Your task to perform on an android device: turn off wifi Image 0: 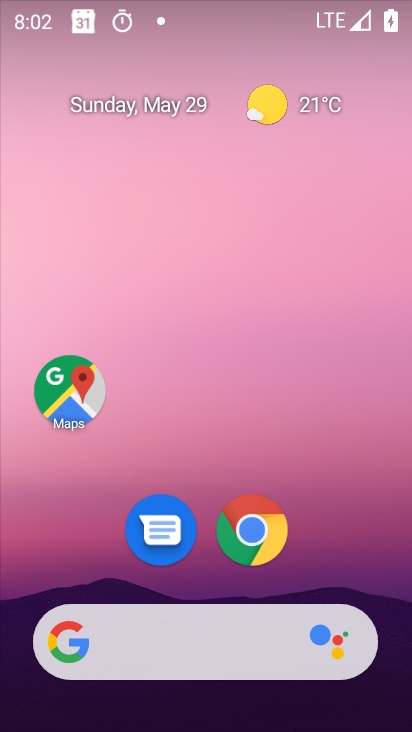
Step 0: drag from (276, 685) to (246, 264)
Your task to perform on an android device: turn off wifi Image 1: 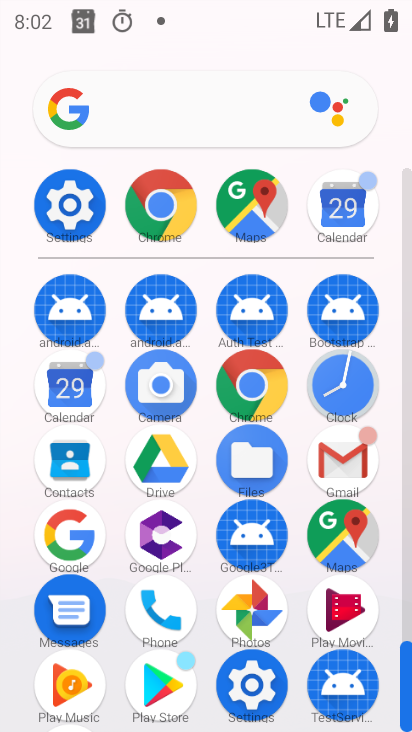
Step 1: click (72, 228)
Your task to perform on an android device: turn off wifi Image 2: 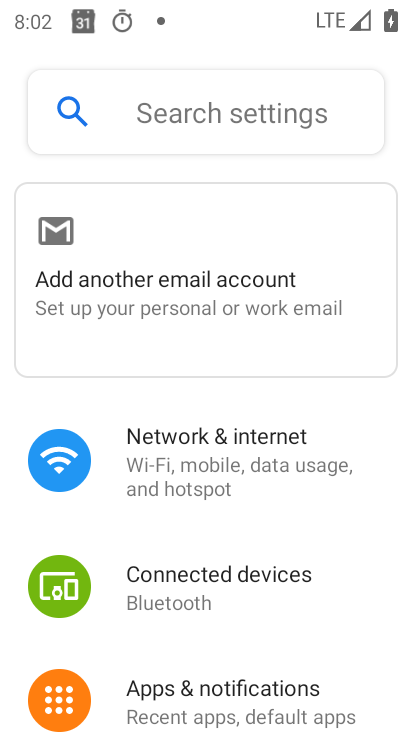
Step 2: click (204, 469)
Your task to perform on an android device: turn off wifi Image 3: 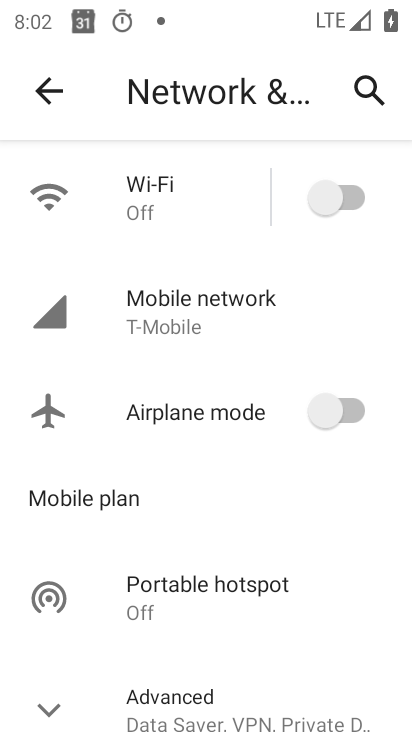
Step 3: click (335, 201)
Your task to perform on an android device: turn off wifi Image 4: 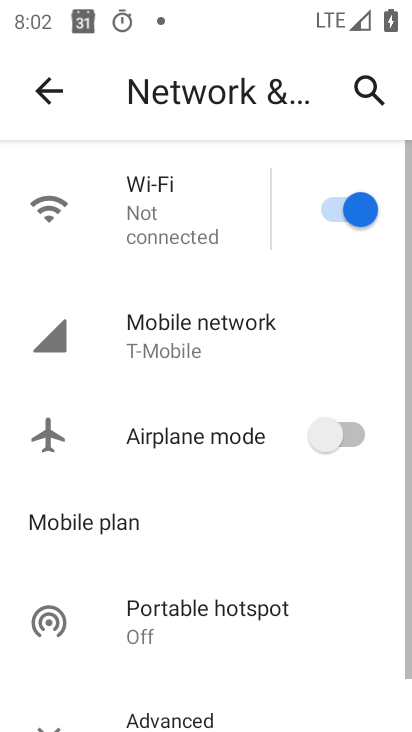
Step 4: click (335, 201)
Your task to perform on an android device: turn off wifi Image 5: 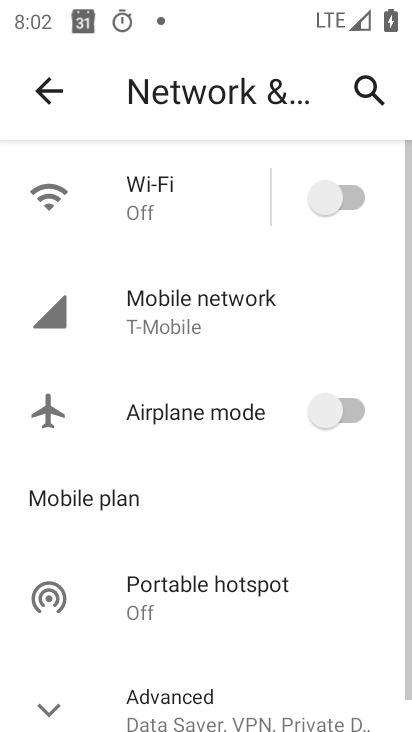
Step 5: task complete